Your task to perform on an android device: change keyboard looks Image 0: 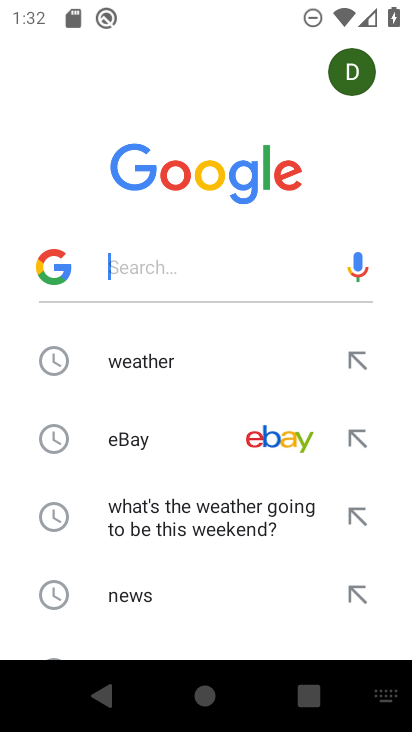
Step 0: press back button
Your task to perform on an android device: change keyboard looks Image 1: 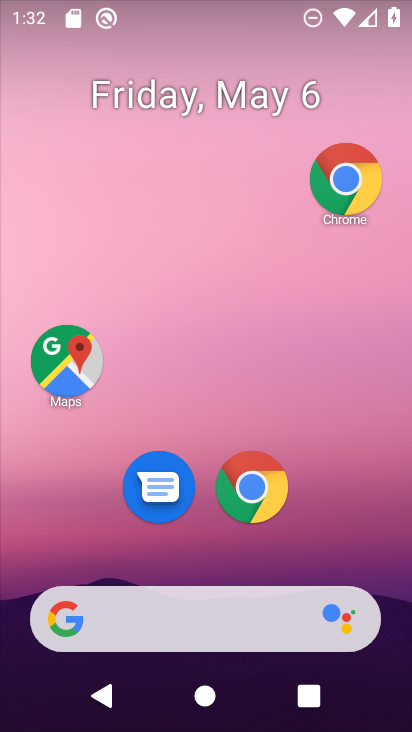
Step 1: drag from (317, 519) to (292, 152)
Your task to perform on an android device: change keyboard looks Image 2: 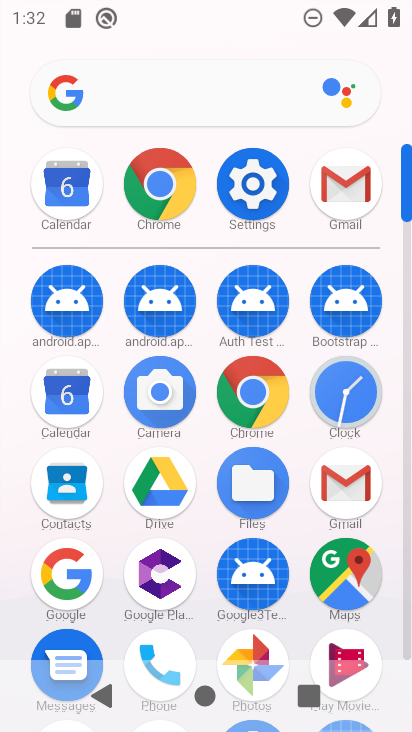
Step 2: click (249, 213)
Your task to perform on an android device: change keyboard looks Image 3: 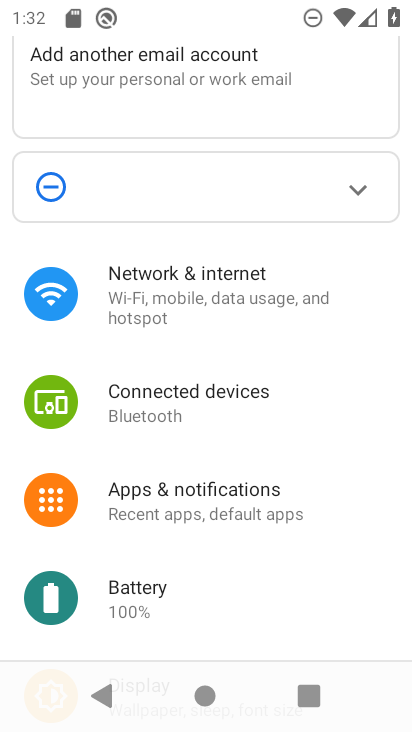
Step 3: drag from (151, 569) to (170, 252)
Your task to perform on an android device: change keyboard looks Image 4: 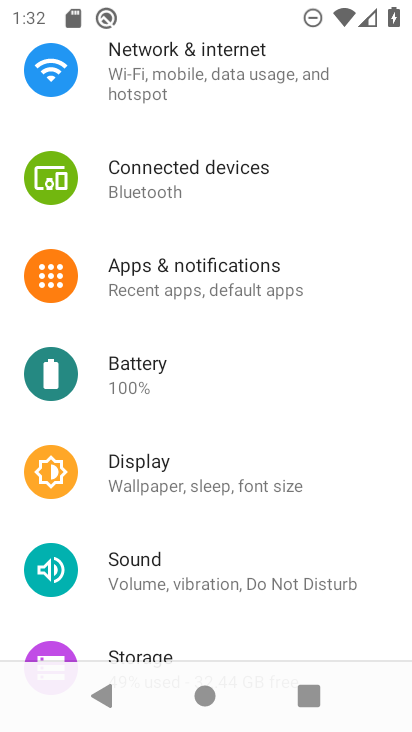
Step 4: drag from (191, 523) to (189, 136)
Your task to perform on an android device: change keyboard looks Image 5: 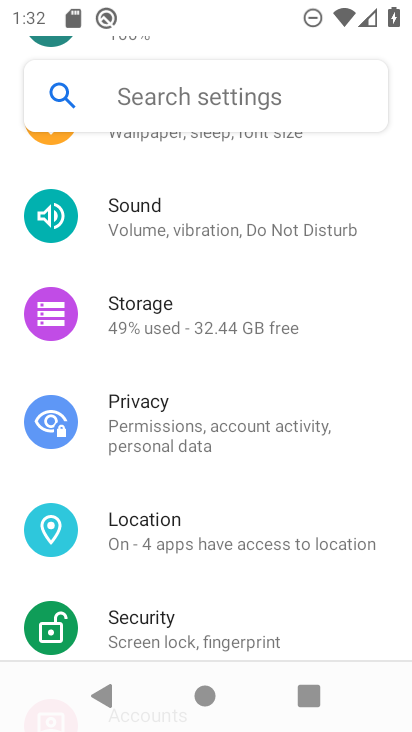
Step 5: drag from (170, 489) to (153, 283)
Your task to perform on an android device: change keyboard looks Image 6: 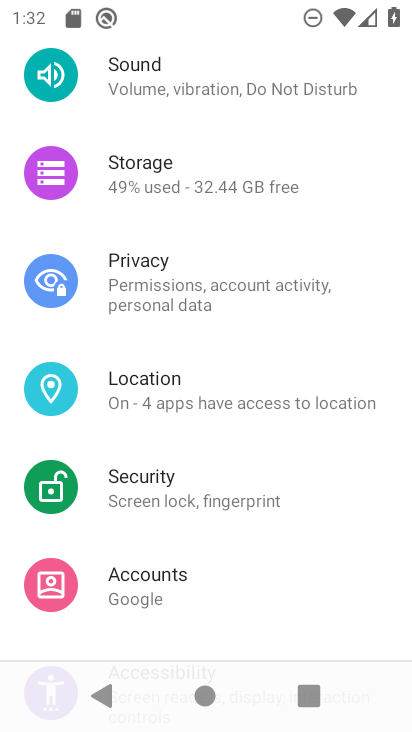
Step 6: drag from (166, 611) to (179, 124)
Your task to perform on an android device: change keyboard looks Image 7: 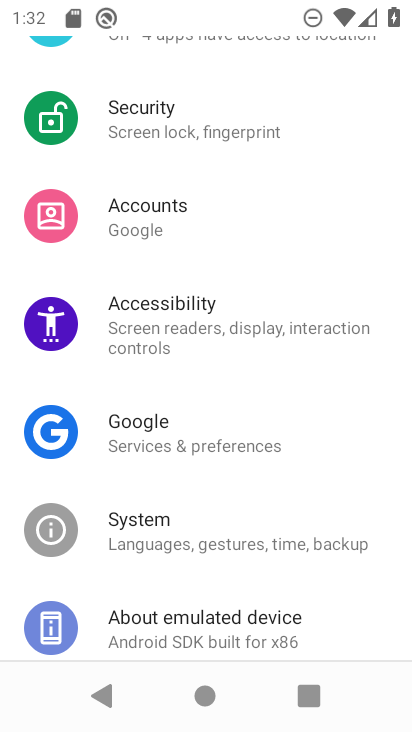
Step 7: drag from (166, 548) to (199, 199)
Your task to perform on an android device: change keyboard looks Image 8: 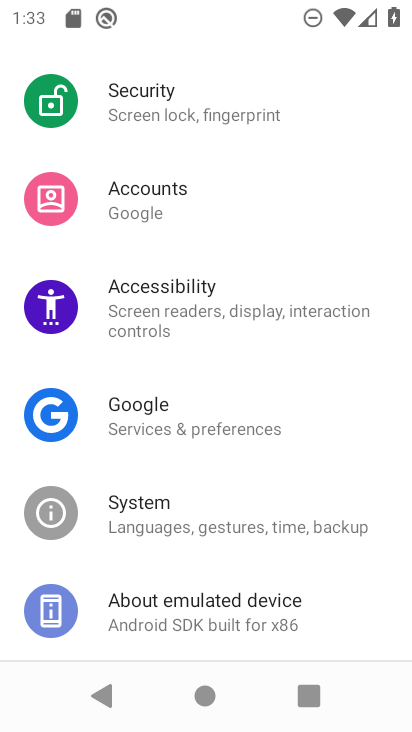
Step 8: click (174, 498)
Your task to perform on an android device: change keyboard looks Image 9: 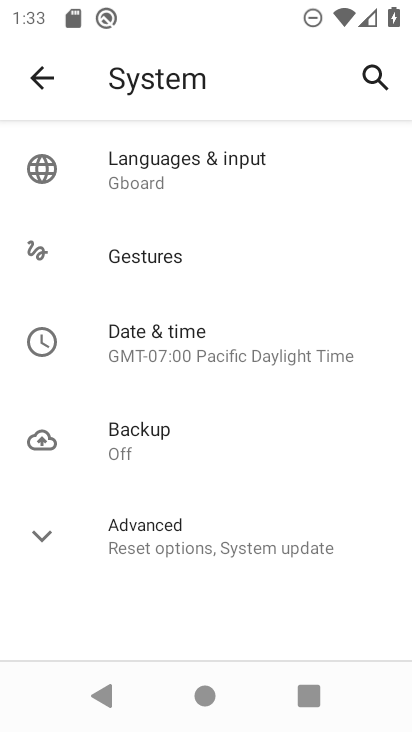
Step 9: click (133, 177)
Your task to perform on an android device: change keyboard looks Image 10: 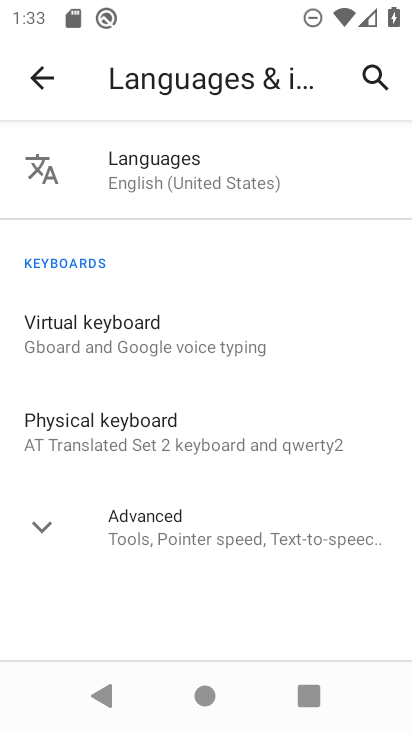
Step 10: click (126, 316)
Your task to perform on an android device: change keyboard looks Image 11: 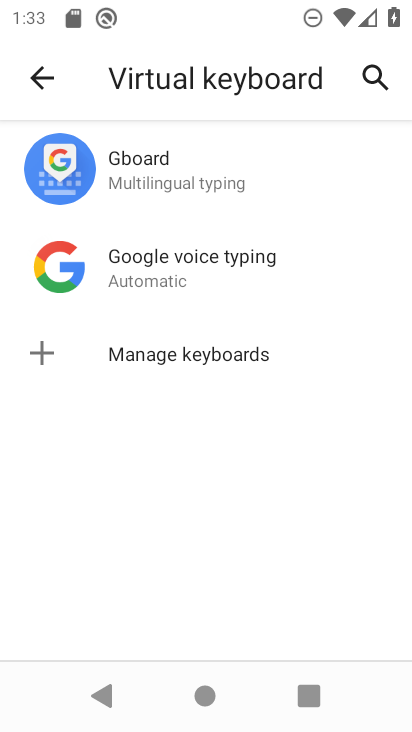
Step 11: click (181, 173)
Your task to perform on an android device: change keyboard looks Image 12: 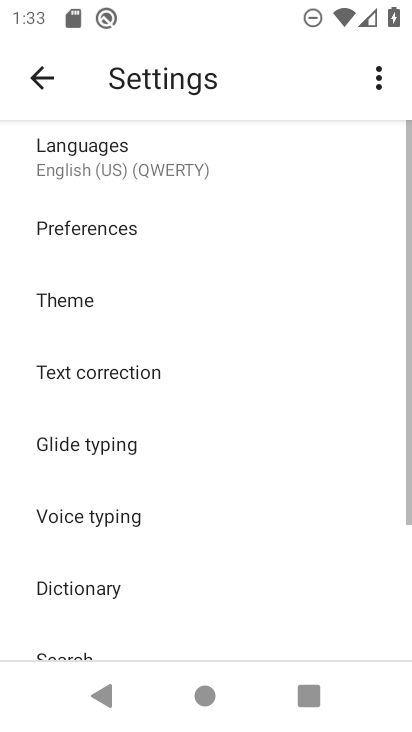
Step 12: click (133, 296)
Your task to perform on an android device: change keyboard looks Image 13: 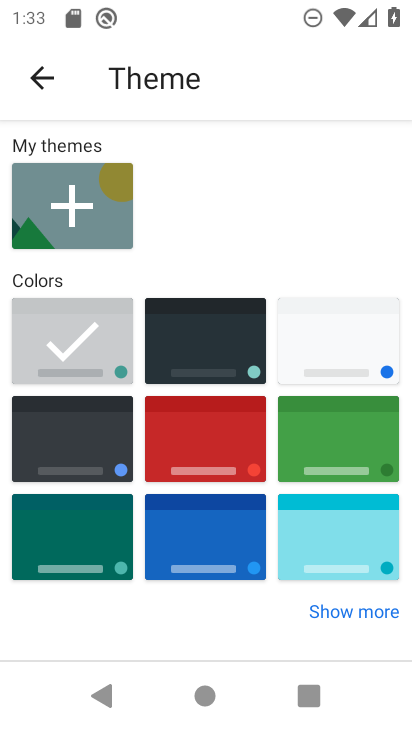
Step 13: click (197, 370)
Your task to perform on an android device: change keyboard looks Image 14: 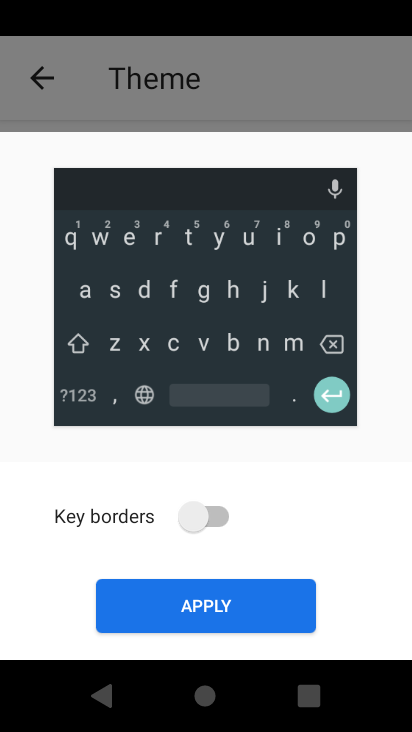
Step 14: click (265, 603)
Your task to perform on an android device: change keyboard looks Image 15: 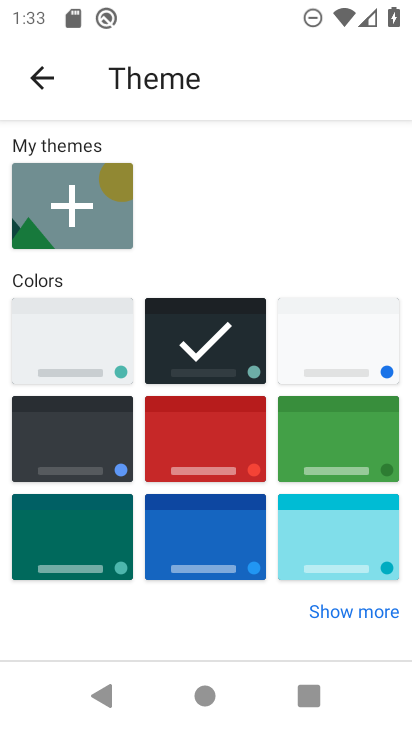
Step 15: task complete